Your task to perform on an android device: find which apps use the phone's location Image 0: 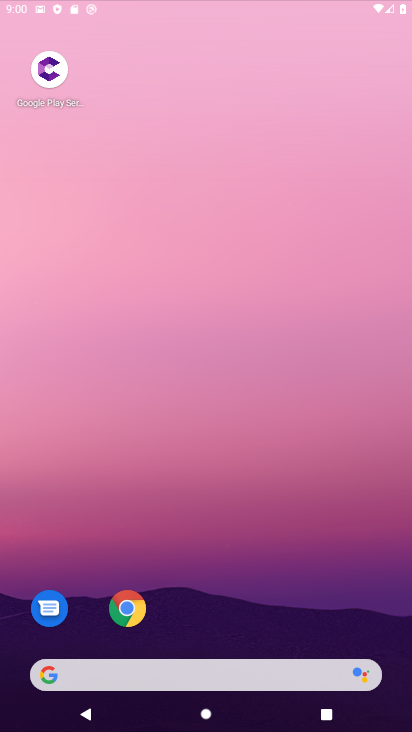
Step 0: click (327, 2)
Your task to perform on an android device: find which apps use the phone's location Image 1: 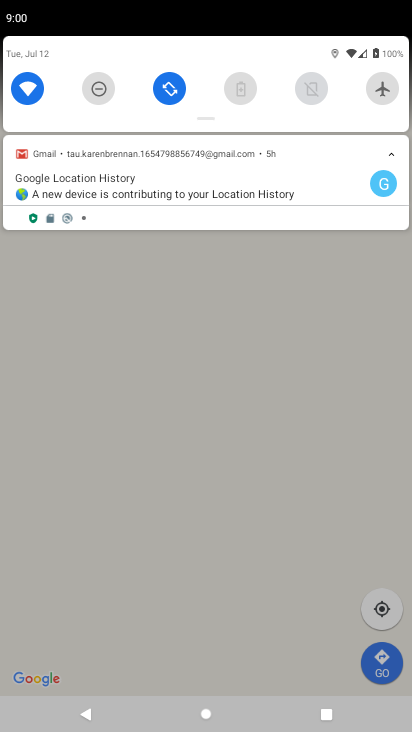
Step 1: press home button
Your task to perform on an android device: find which apps use the phone's location Image 2: 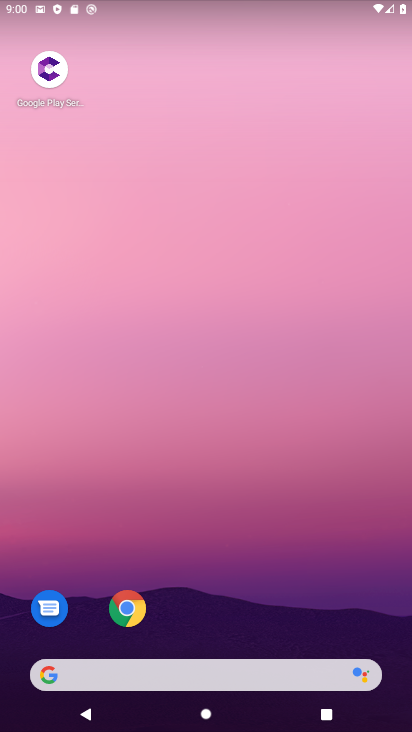
Step 2: drag from (242, 675) to (217, 108)
Your task to perform on an android device: find which apps use the phone's location Image 3: 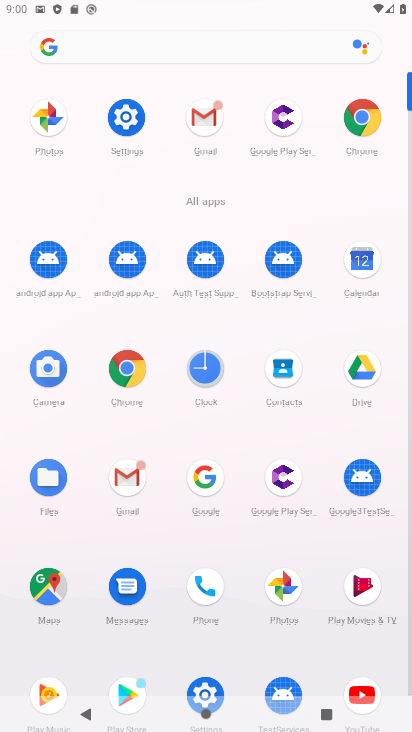
Step 3: click (134, 120)
Your task to perform on an android device: find which apps use the phone's location Image 4: 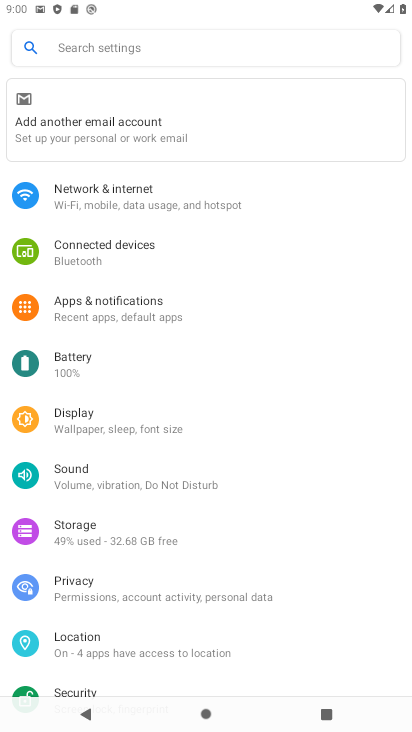
Step 4: click (142, 638)
Your task to perform on an android device: find which apps use the phone's location Image 5: 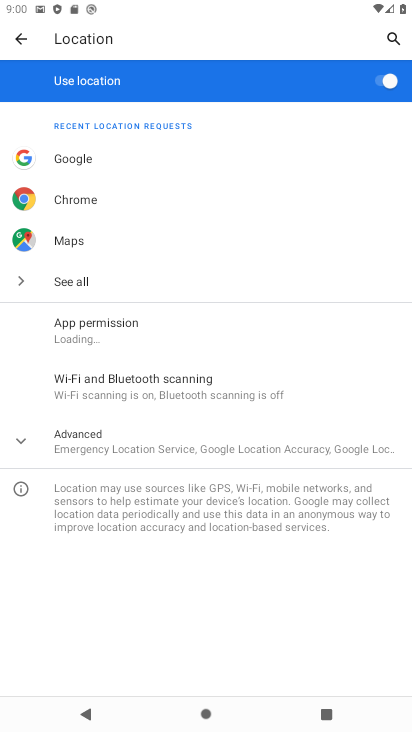
Step 5: click (104, 327)
Your task to perform on an android device: find which apps use the phone's location Image 6: 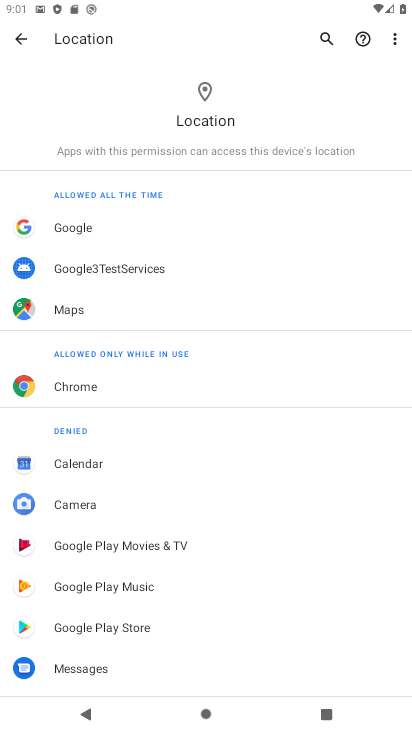
Step 6: task complete